Your task to perform on an android device: Open Google Chrome and click the shortcut for Amazon.com Image 0: 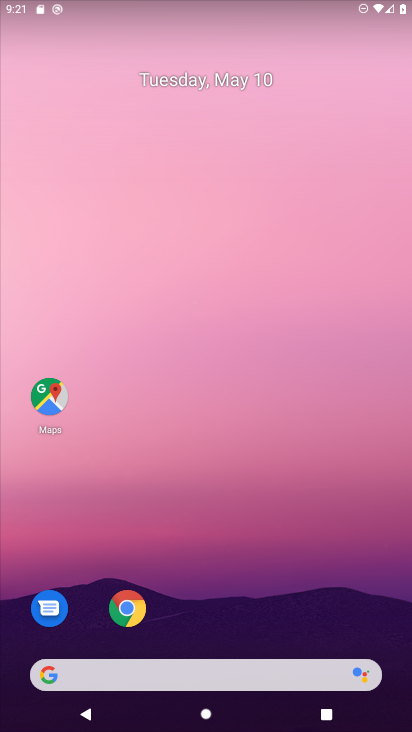
Step 0: drag from (400, 641) to (285, 80)
Your task to perform on an android device: Open Google Chrome and click the shortcut for Amazon.com Image 1: 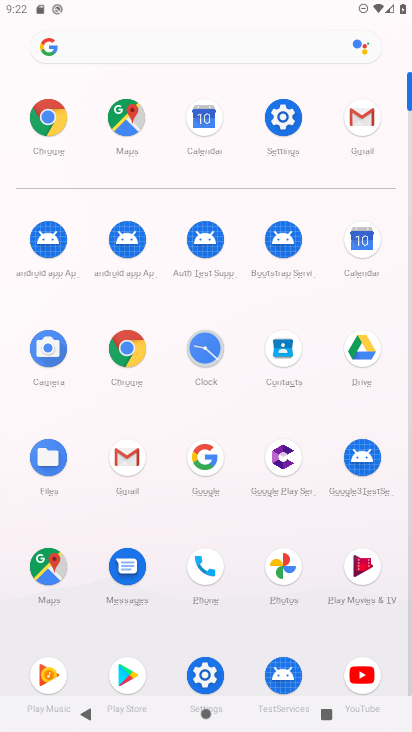
Step 1: click (124, 340)
Your task to perform on an android device: Open Google Chrome and click the shortcut for Amazon.com Image 2: 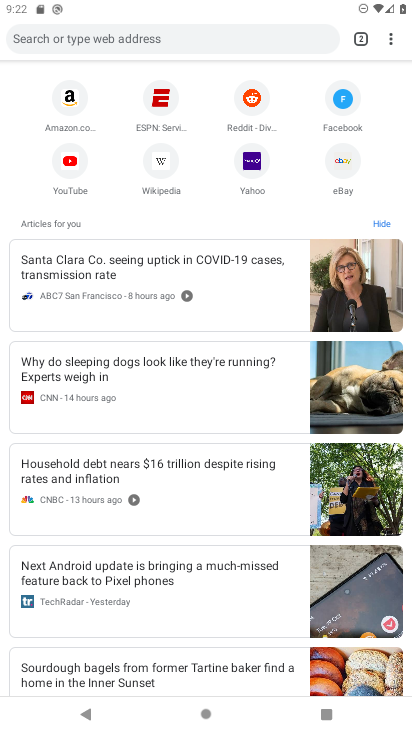
Step 2: click (59, 99)
Your task to perform on an android device: Open Google Chrome and click the shortcut for Amazon.com Image 3: 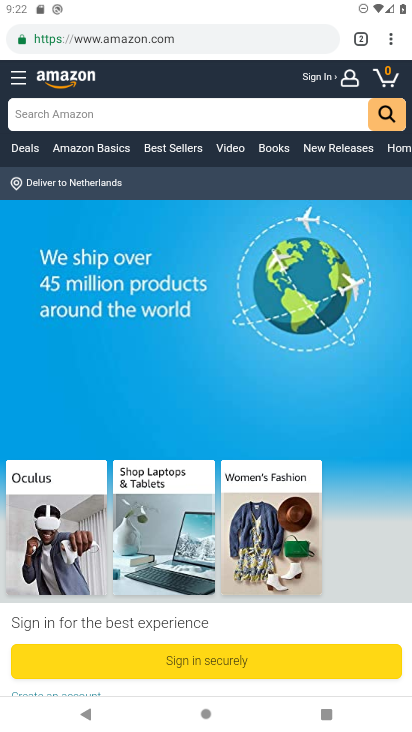
Step 3: task complete